Your task to perform on an android device: find which apps use the phone's location Image 0: 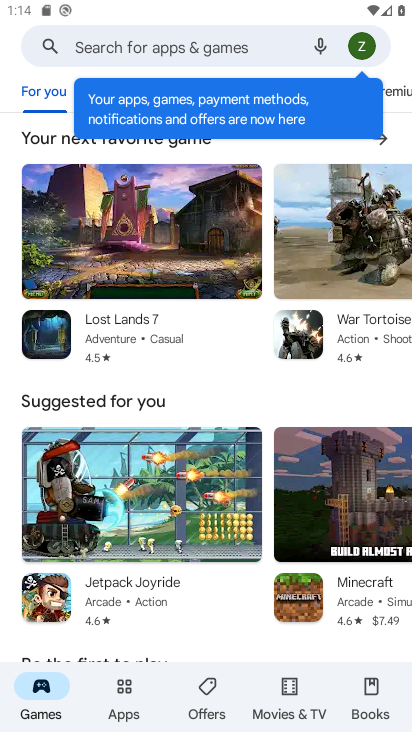
Step 0: press home button
Your task to perform on an android device: find which apps use the phone's location Image 1: 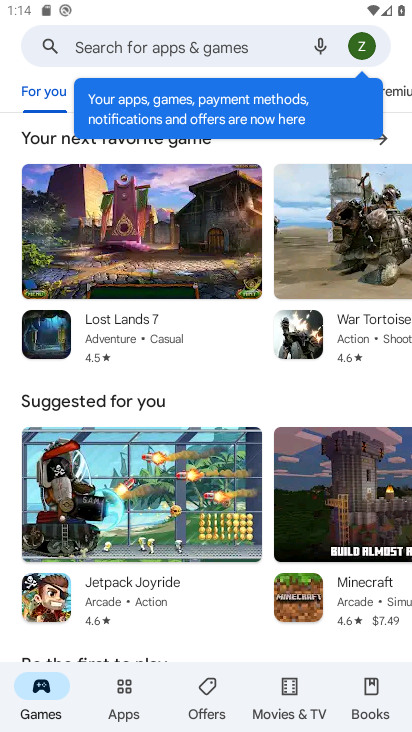
Step 1: press home button
Your task to perform on an android device: find which apps use the phone's location Image 2: 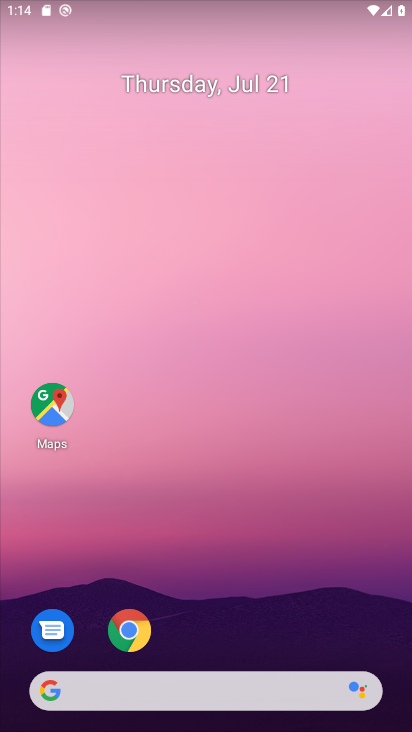
Step 2: drag from (282, 644) to (103, 169)
Your task to perform on an android device: find which apps use the phone's location Image 3: 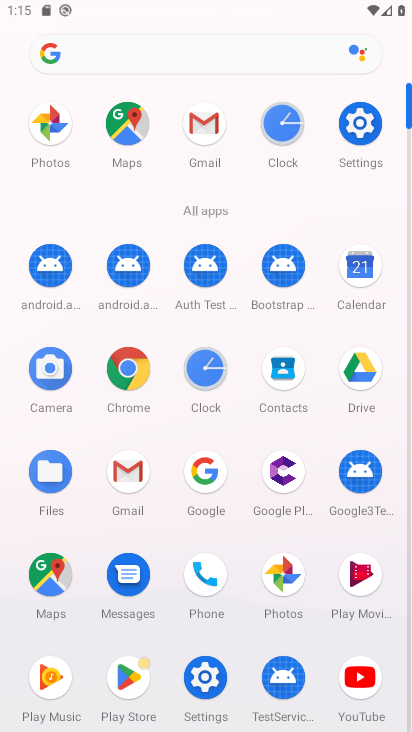
Step 3: click (185, 585)
Your task to perform on an android device: find which apps use the phone's location Image 4: 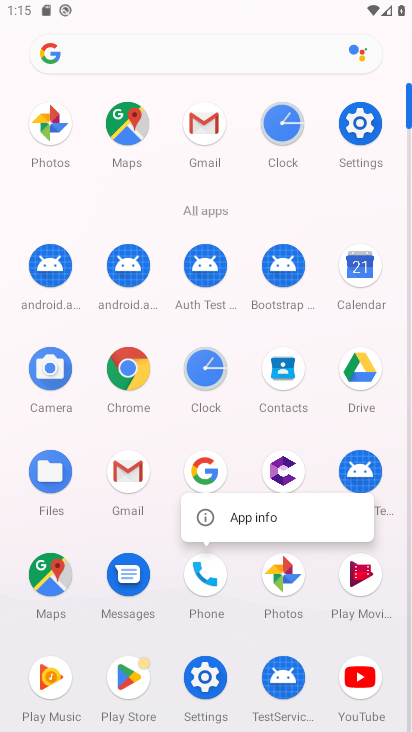
Step 4: click (304, 512)
Your task to perform on an android device: find which apps use the phone's location Image 5: 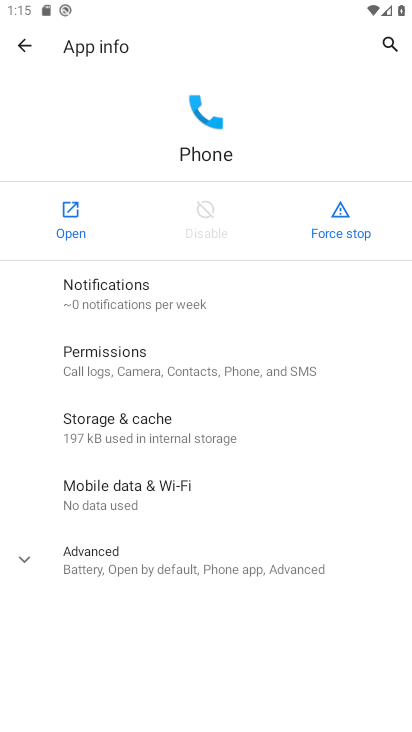
Step 5: click (69, 357)
Your task to perform on an android device: find which apps use the phone's location Image 6: 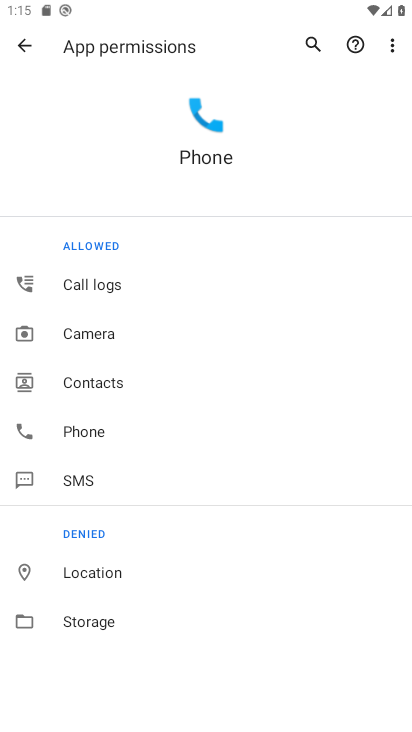
Step 6: click (67, 570)
Your task to perform on an android device: find which apps use the phone's location Image 7: 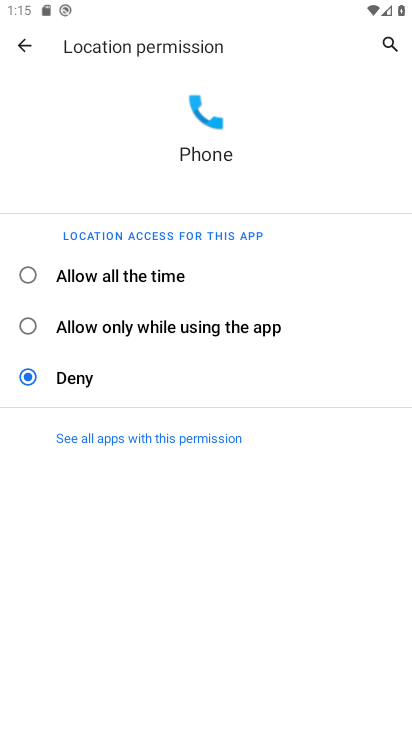
Step 7: click (123, 445)
Your task to perform on an android device: find which apps use the phone's location Image 8: 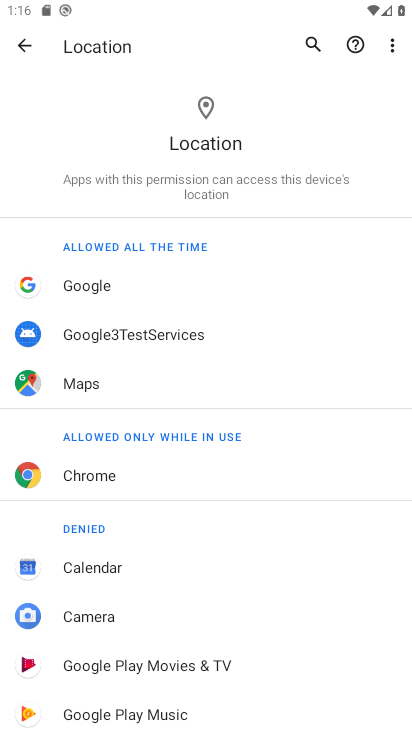
Step 8: task complete